Your task to perform on an android device: Open ESPN.com Image 0: 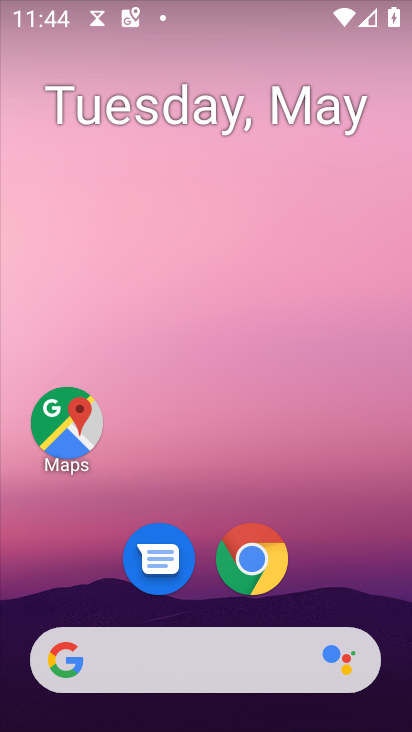
Step 0: click (230, 574)
Your task to perform on an android device: Open ESPN.com Image 1: 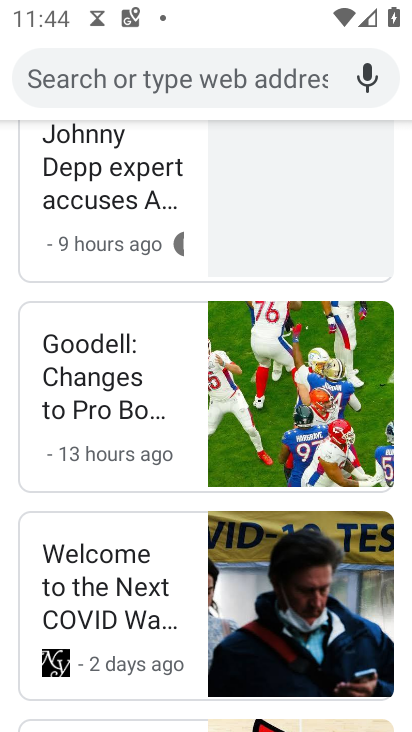
Step 1: drag from (94, 216) to (135, 710)
Your task to perform on an android device: Open ESPN.com Image 2: 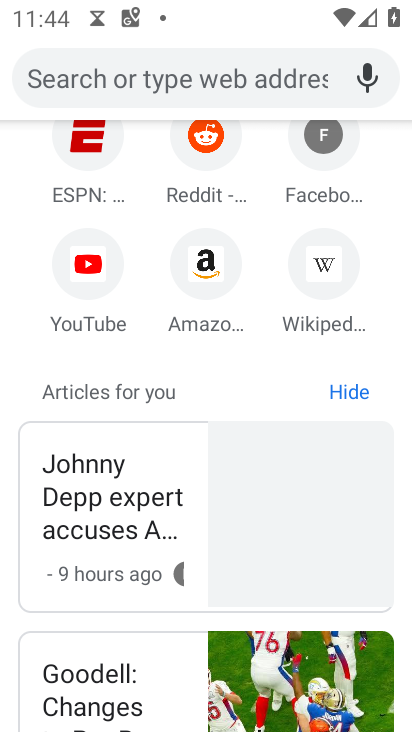
Step 2: drag from (196, 365) to (194, 731)
Your task to perform on an android device: Open ESPN.com Image 3: 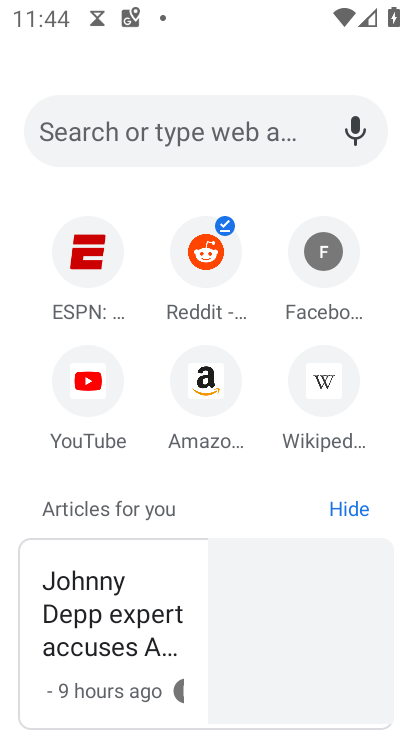
Step 3: click (85, 254)
Your task to perform on an android device: Open ESPN.com Image 4: 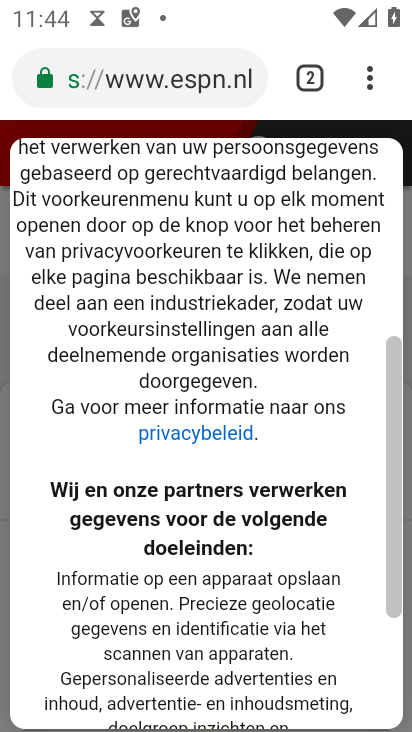
Step 4: task complete